Your task to perform on an android device: Open Chrome and go to settings Image 0: 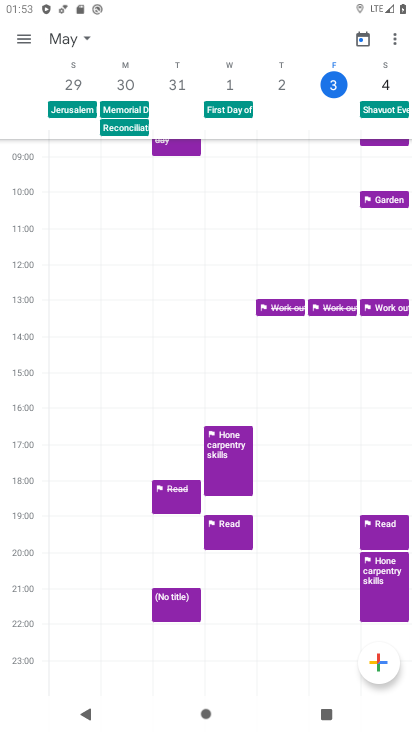
Step 0: press home button
Your task to perform on an android device: Open Chrome and go to settings Image 1: 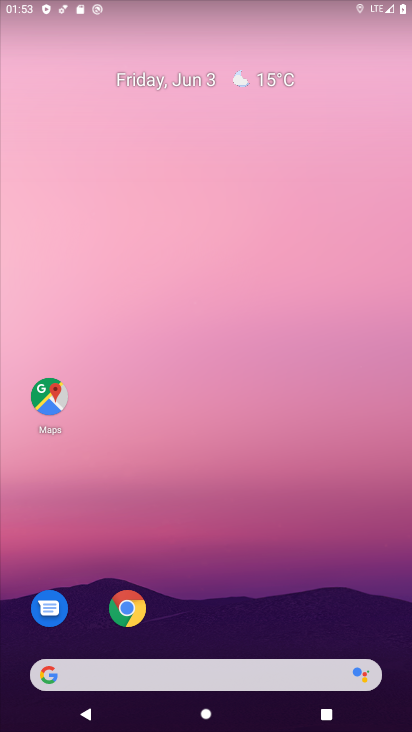
Step 1: drag from (296, 603) to (291, 252)
Your task to perform on an android device: Open Chrome and go to settings Image 2: 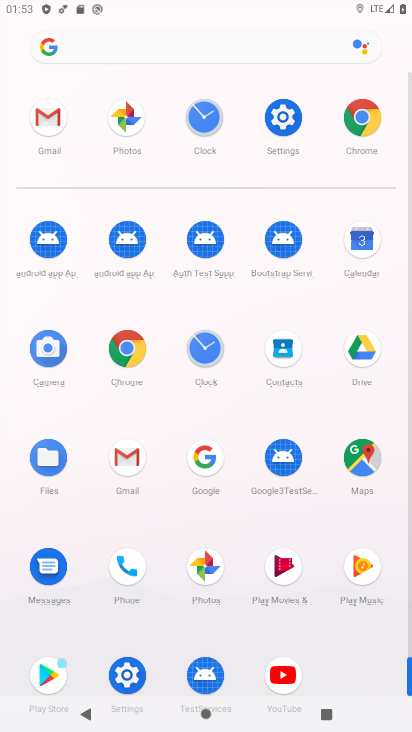
Step 2: click (116, 348)
Your task to perform on an android device: Open Chrome and go to settings Image 3: 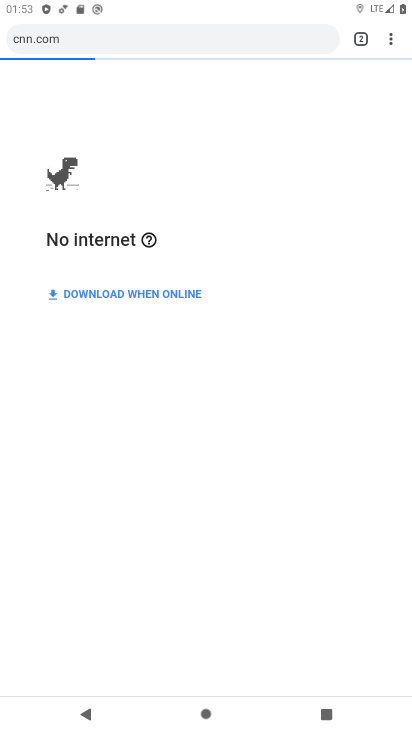
Step 3: click (123, 345)
Your task to perform on an android device: Open Chrome and go to settings Image 4: 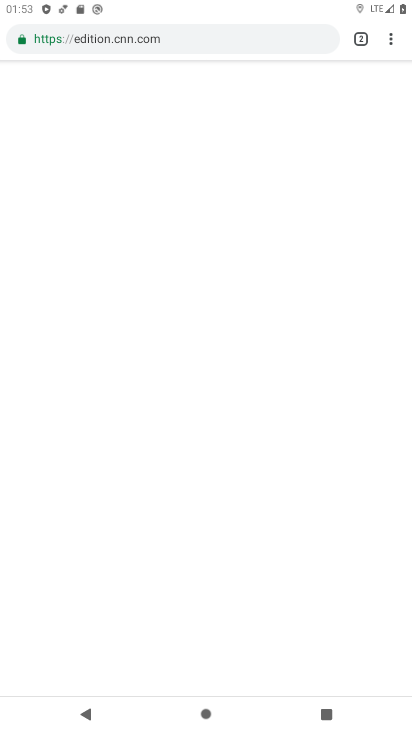
Step 4: task complete